Your task to perform on an android device: Clear all items from cart on costco.com. Search for usb-c on costco.com, select the first entry, add it to the cart, then select checkout. Image 0: 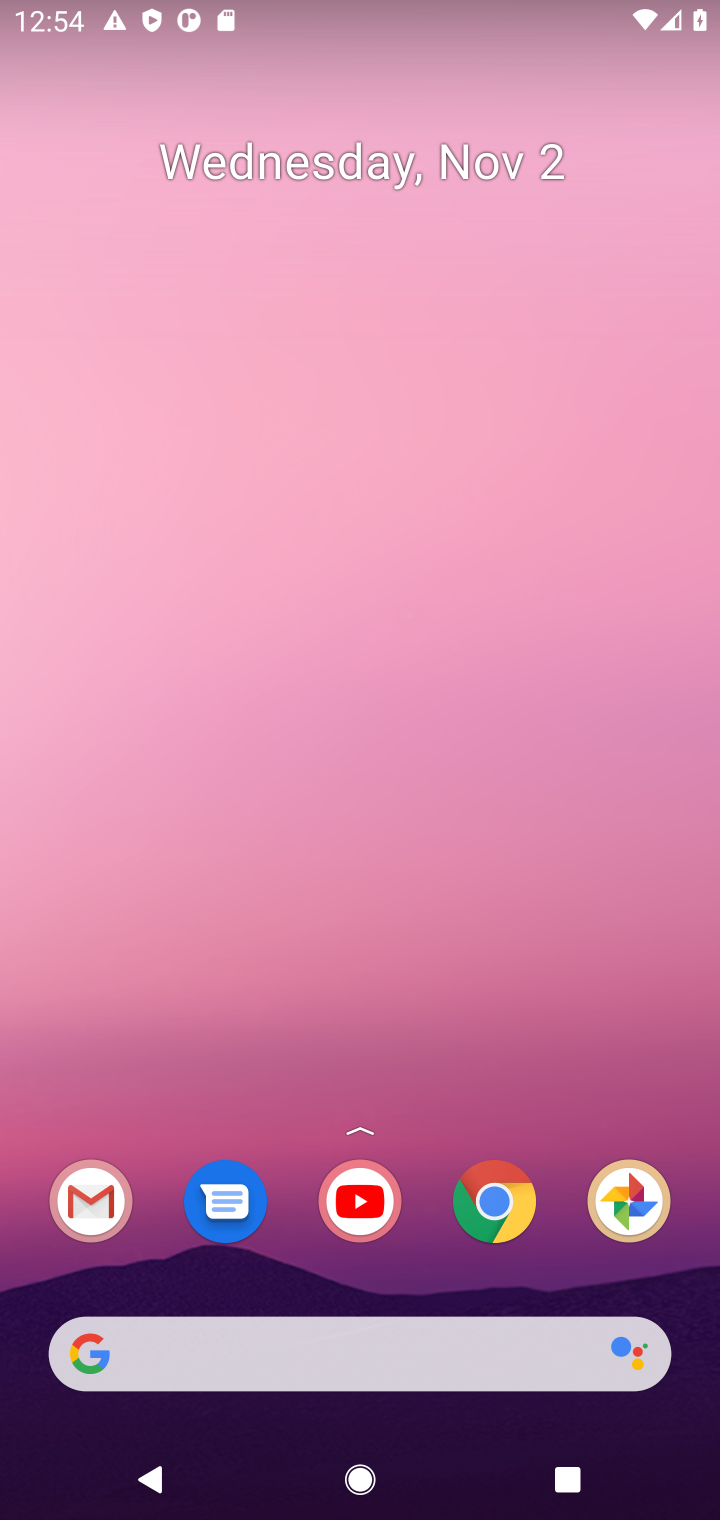
Step 0: drag from (378, 946) to (470, 208)
Your task to perform on an android device: Clear all items from cart on costco.com. Search for usb-c on costco.com, select the first entry, add it to the cart, then select checkout. Image 1: 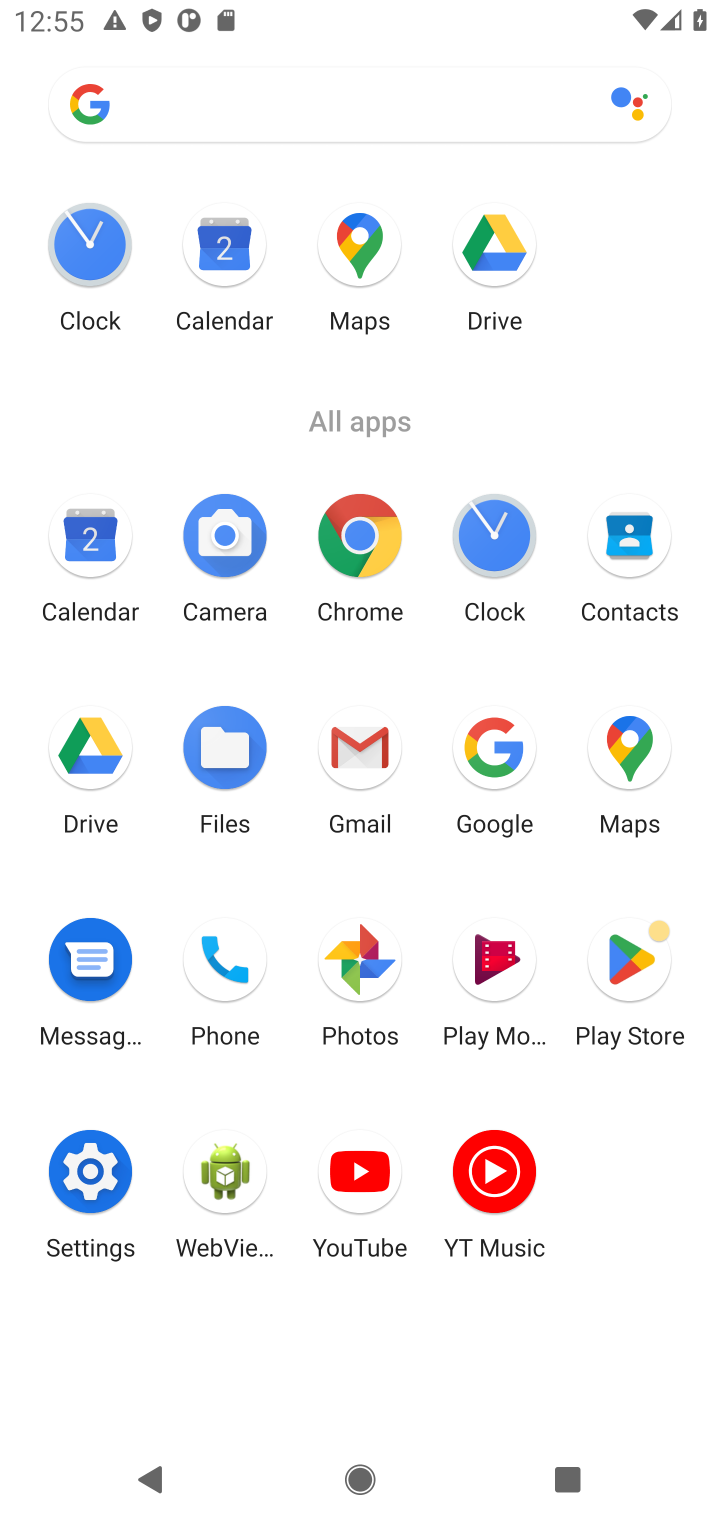
Step 1: click (477, 741)
Your task to perform on an android device: Clear all items from cart on costco.com. Search for usb-c on costco.com, select the first entry, add it to the cart, then select checkout. Image 2: 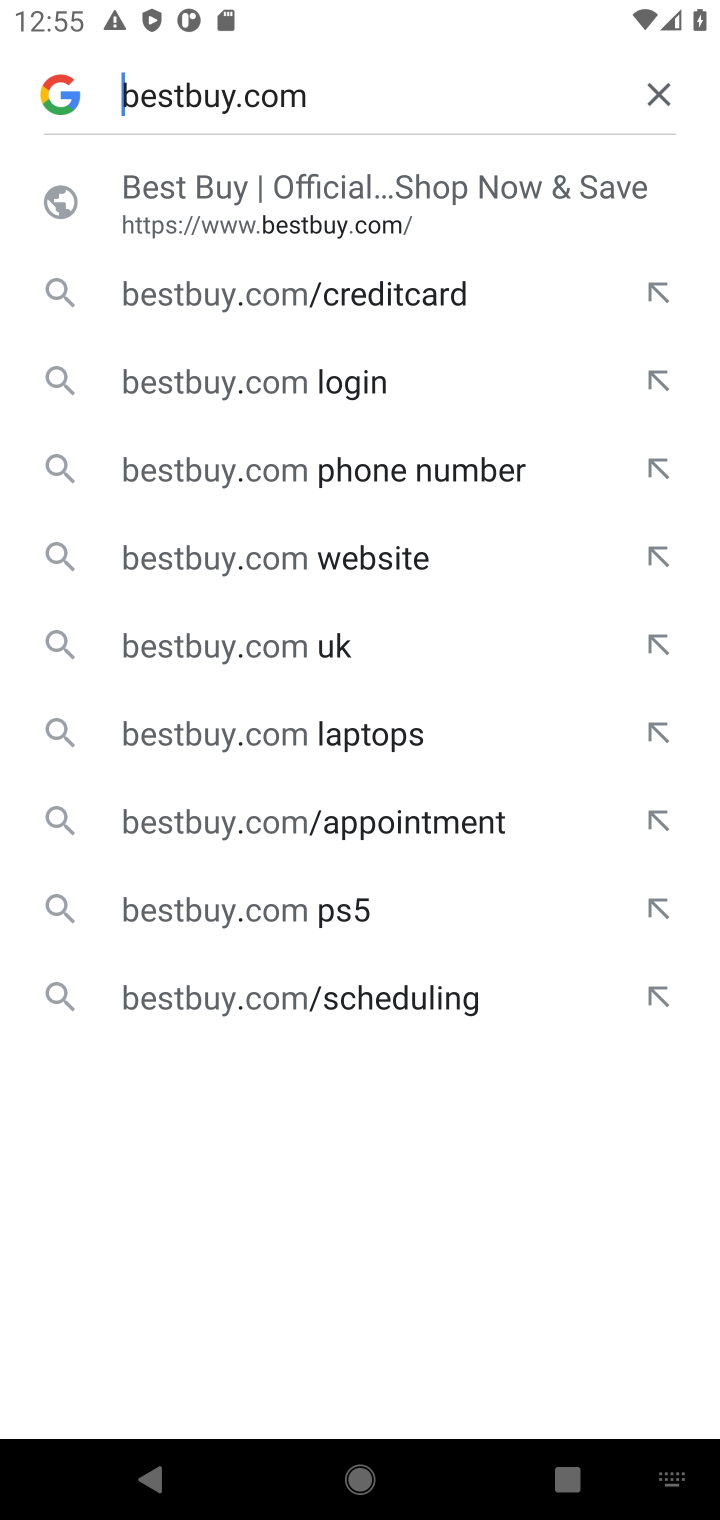
Step 2: click (666, 97)
Your task to perform on an android device: Clear all items from cart on costco.com. Search for usb-c on costco.com, select the first entry, add it to the cart, then select checkout. Image 3: 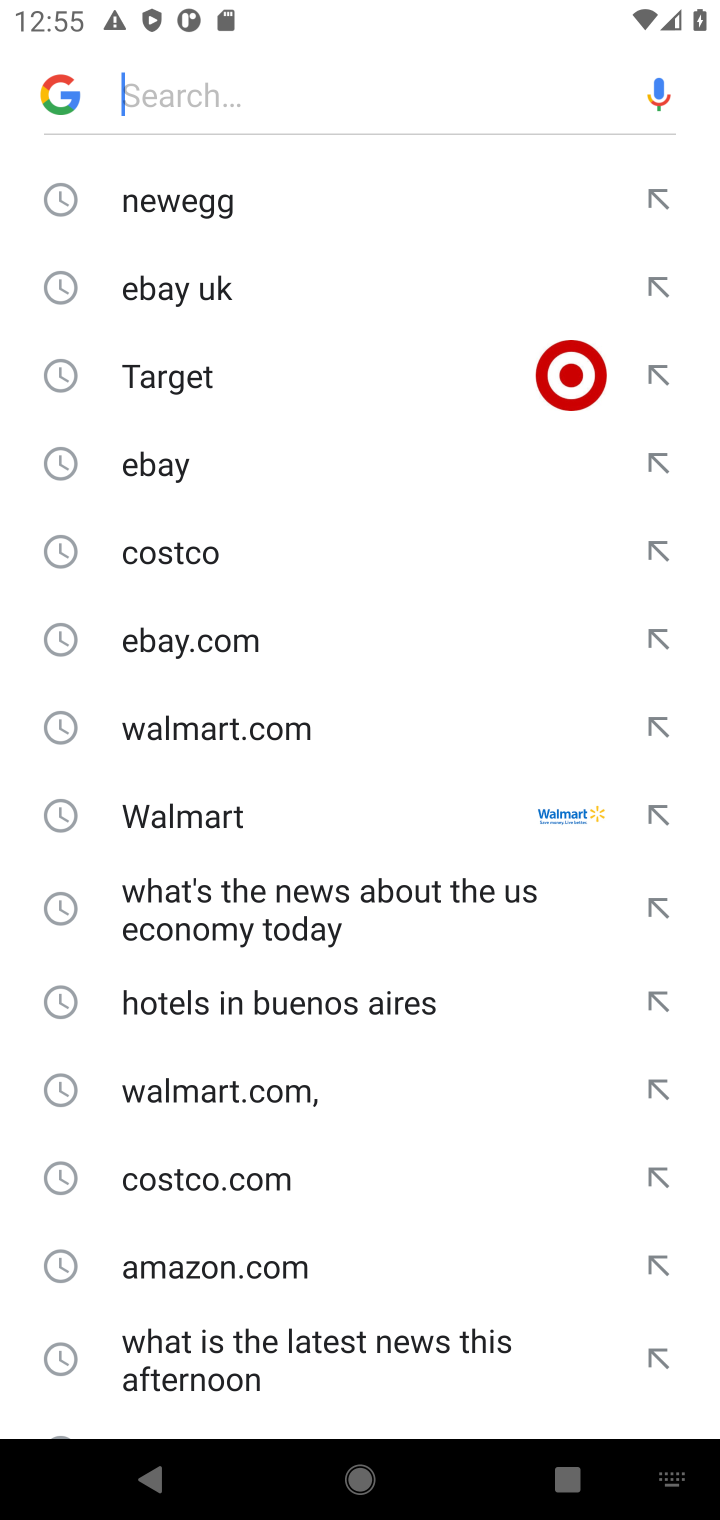
Step 3: click (168, 530)
Your task to perform on an android device: Clear all items from cart on costco.com. Search for usb-c on costco.com, select the first entry, add it to the cart, then select checkout. Image 4: 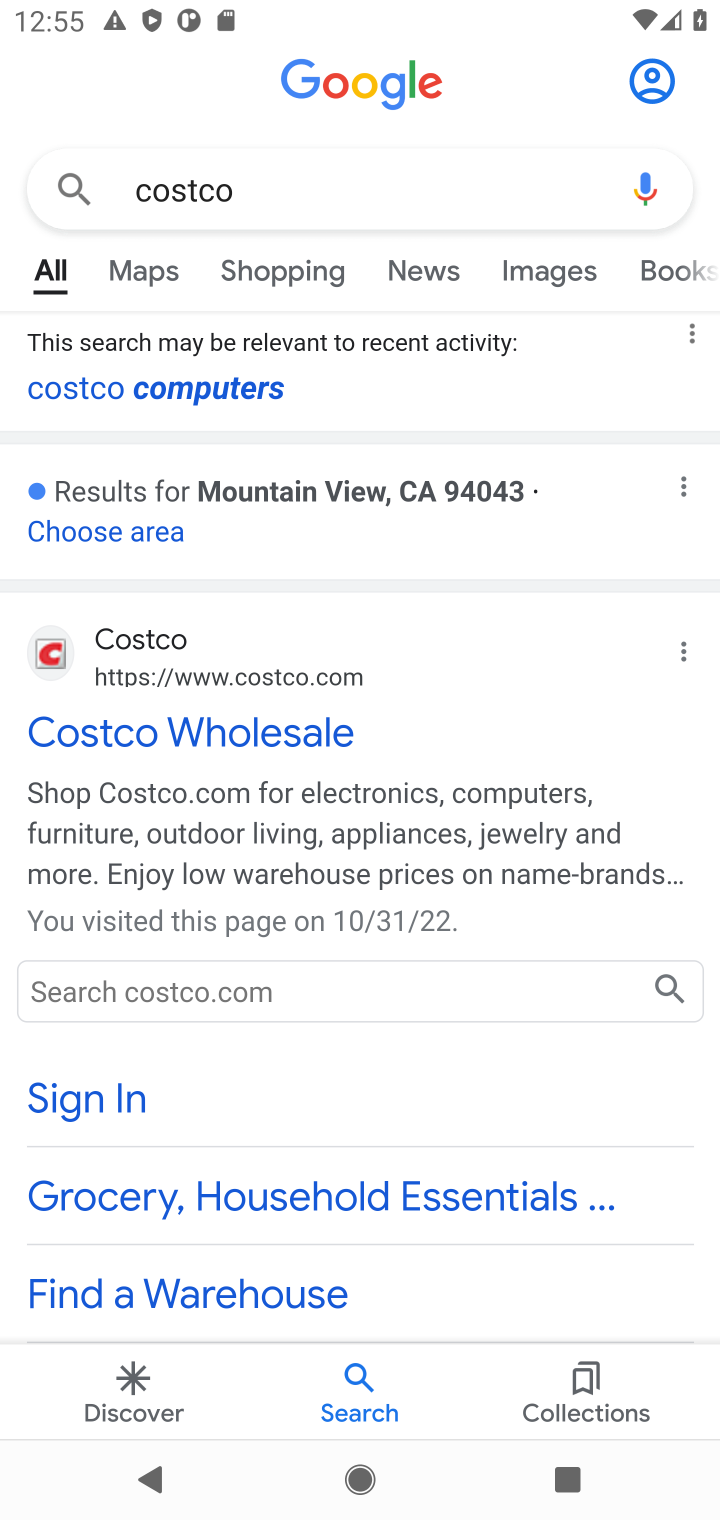
Step 4: click (103, 733)
Your task to perform on an android device: Clear all items from cart on costco.com. Search for usb-c on costco.com, select the first entry, add it to the cart, then select checkout. Image 5: 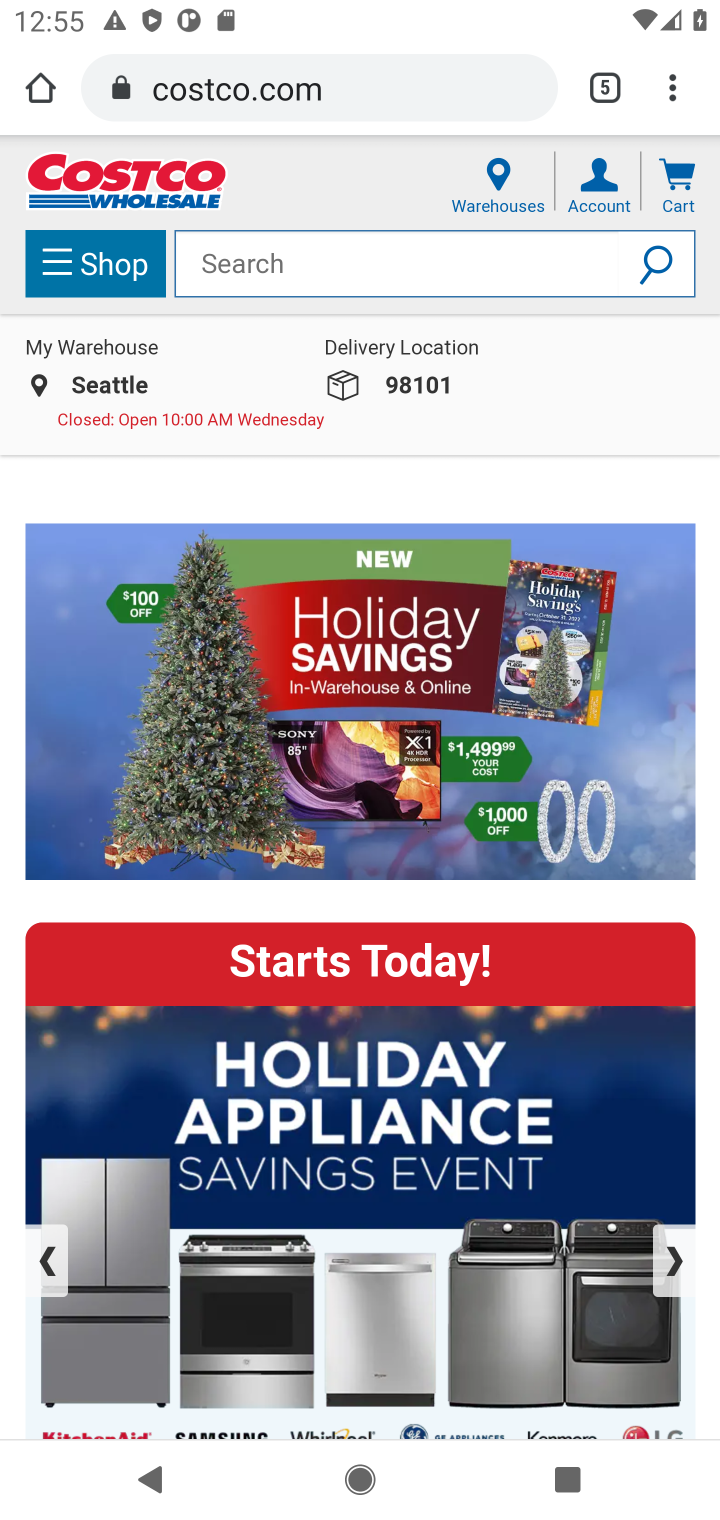
Step 5: click (240, 279)
Your task to perform on an android device: Clear all items from cart on costco.com. Search for usb-c on costco.com, select the first entry, add it to the cart, then select checkout. Image 6: 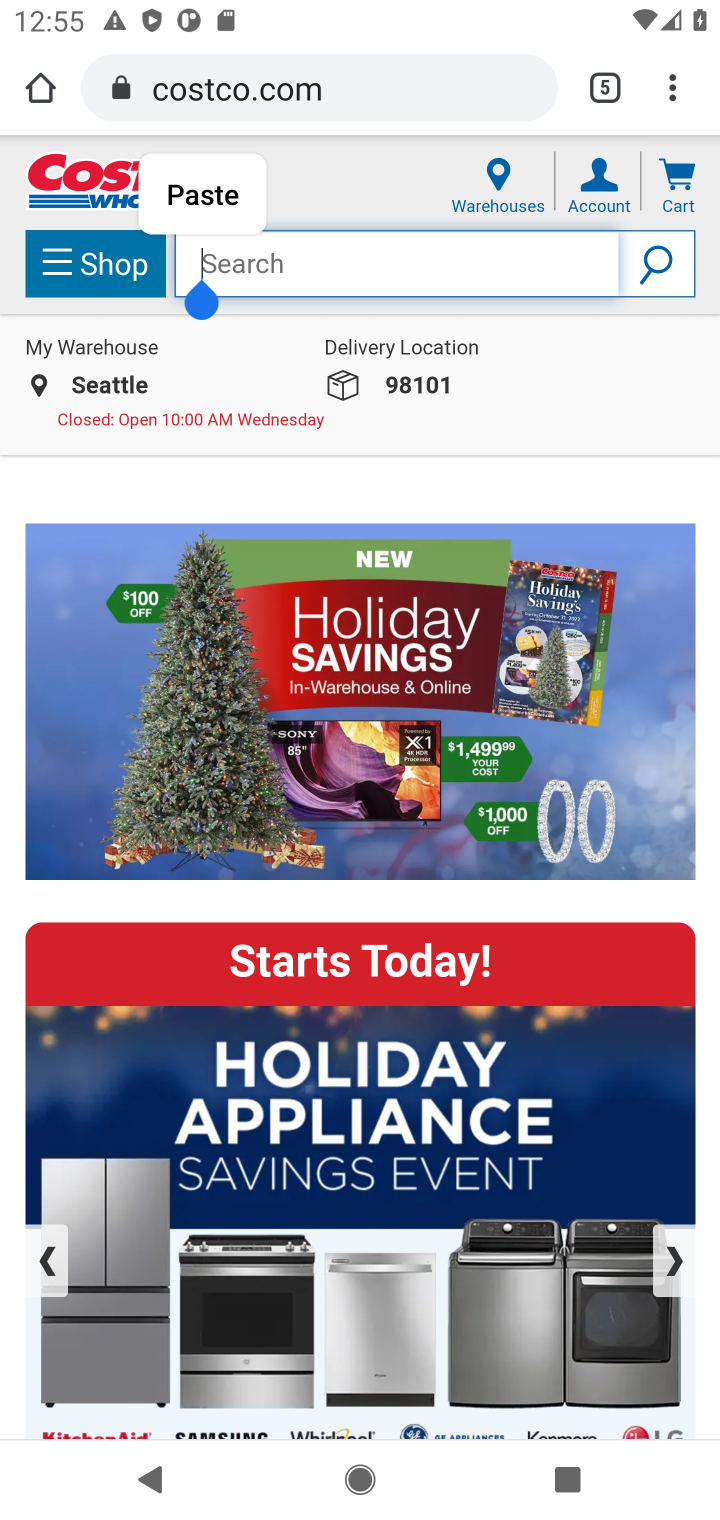
Step 6: type "usb-c"
Your task to perform on an android device: Clear all items from cart on costco.com. Search for usb-c on costco.com, select the first entry, add it to the cart, then select checkout. Image 7: 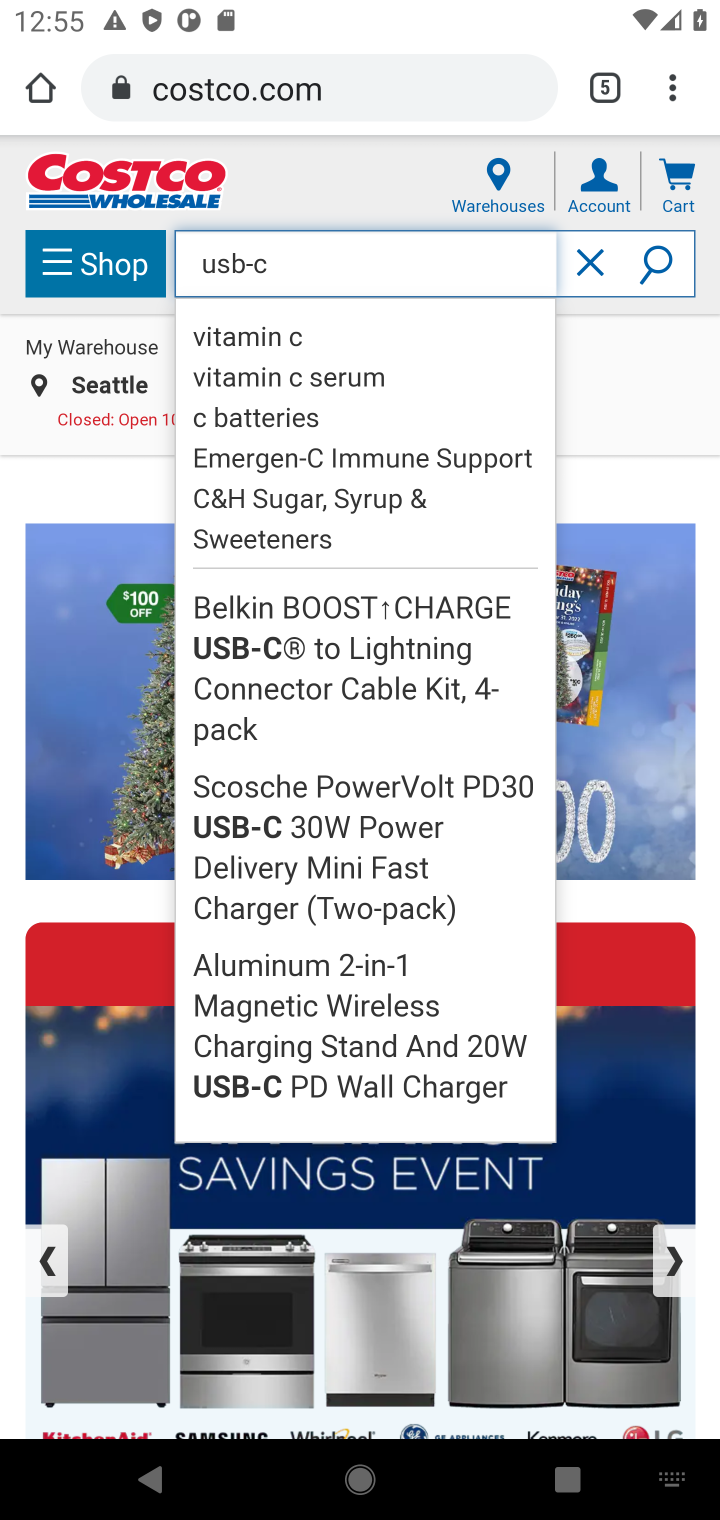
Step 7: click (16, 457)
Your task to perform on an android device: Clear all items from cart on costco.com. Search for usb-c on costco.com, select the first entry, add it to the cart, then select checkout. Image 8: 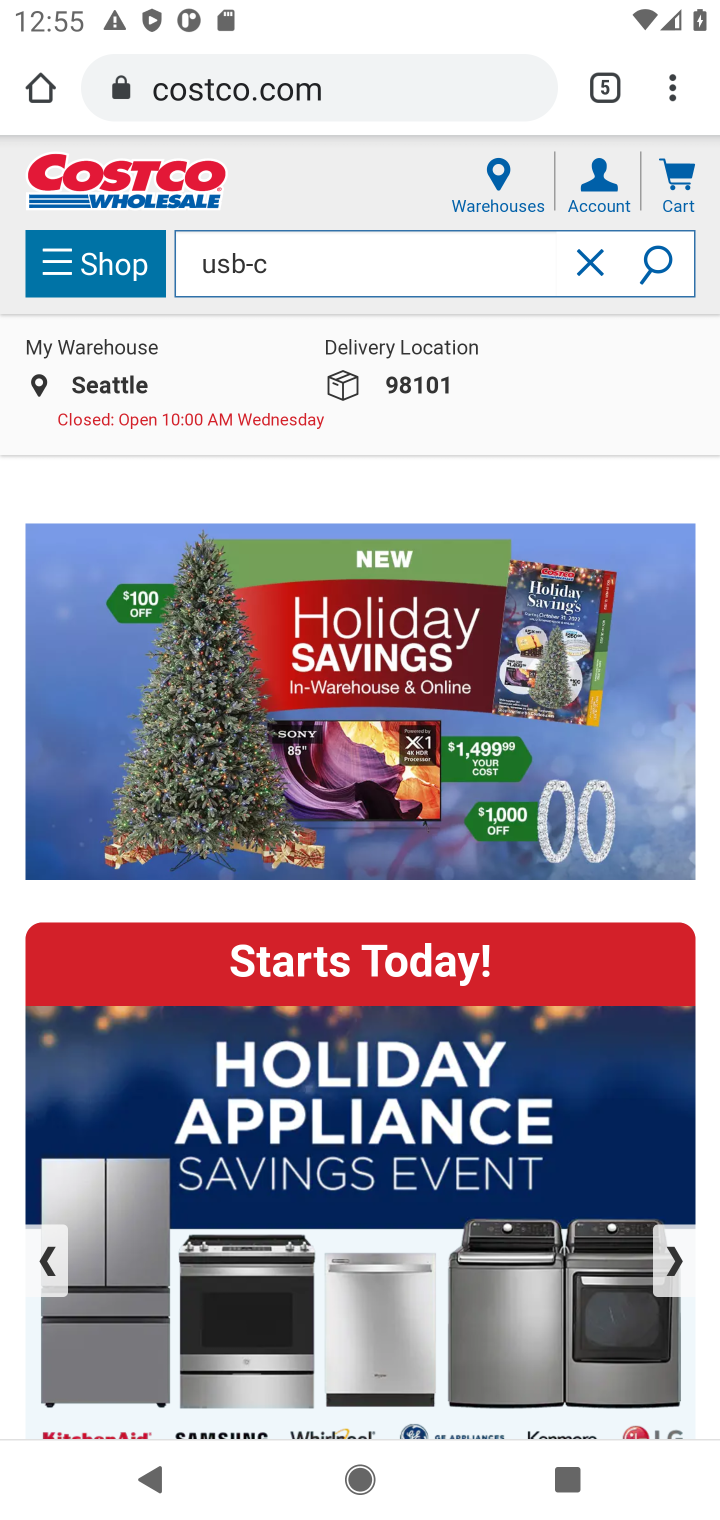
Step 8: click (664, 261)
Your task to perform on an android device: Clear all items from cart on costco.com. Search for usb-c on costco.com, select the first entry, add it to the cart, then select checkout. Image 9: 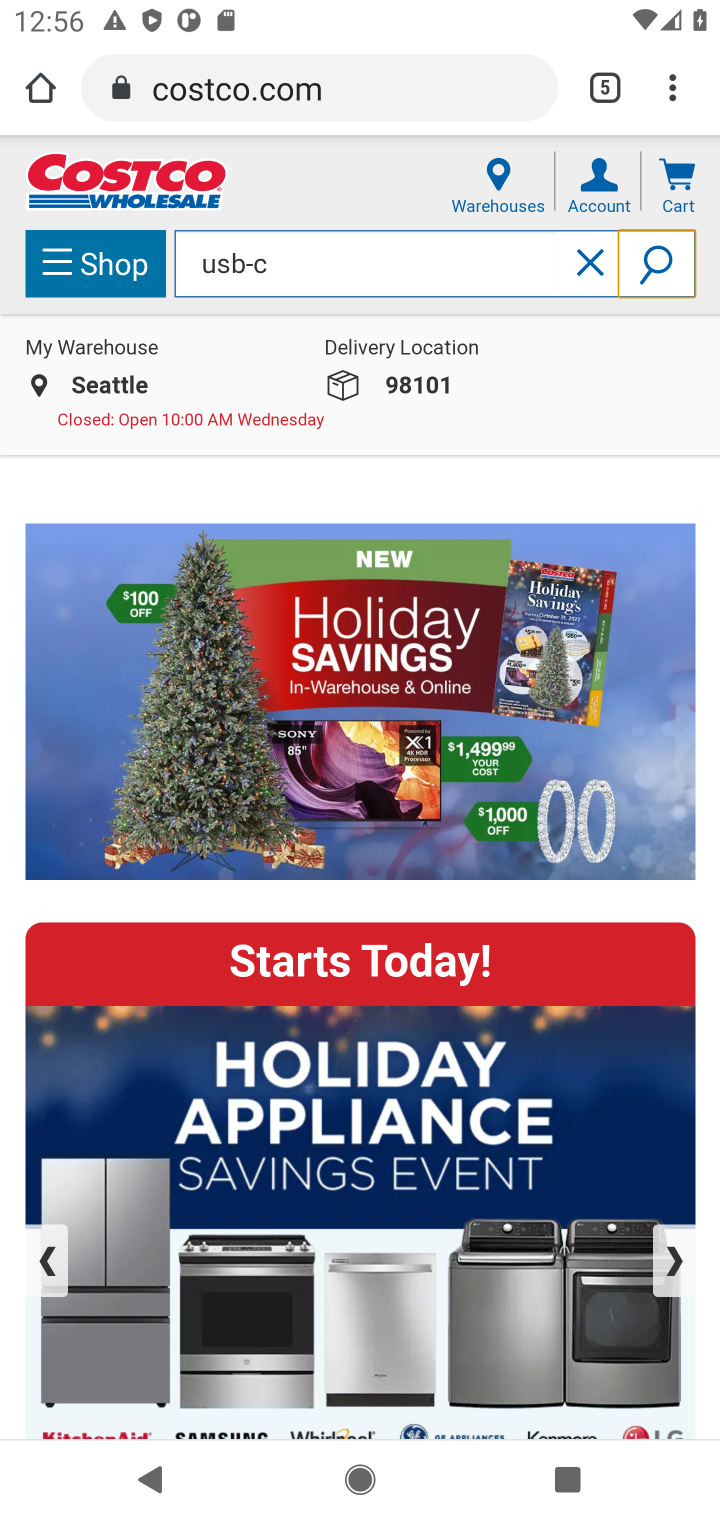
Step 9: task complete